Your task to perform on an android device: Look up the best rated hair dryer on Walmart. Image 0: 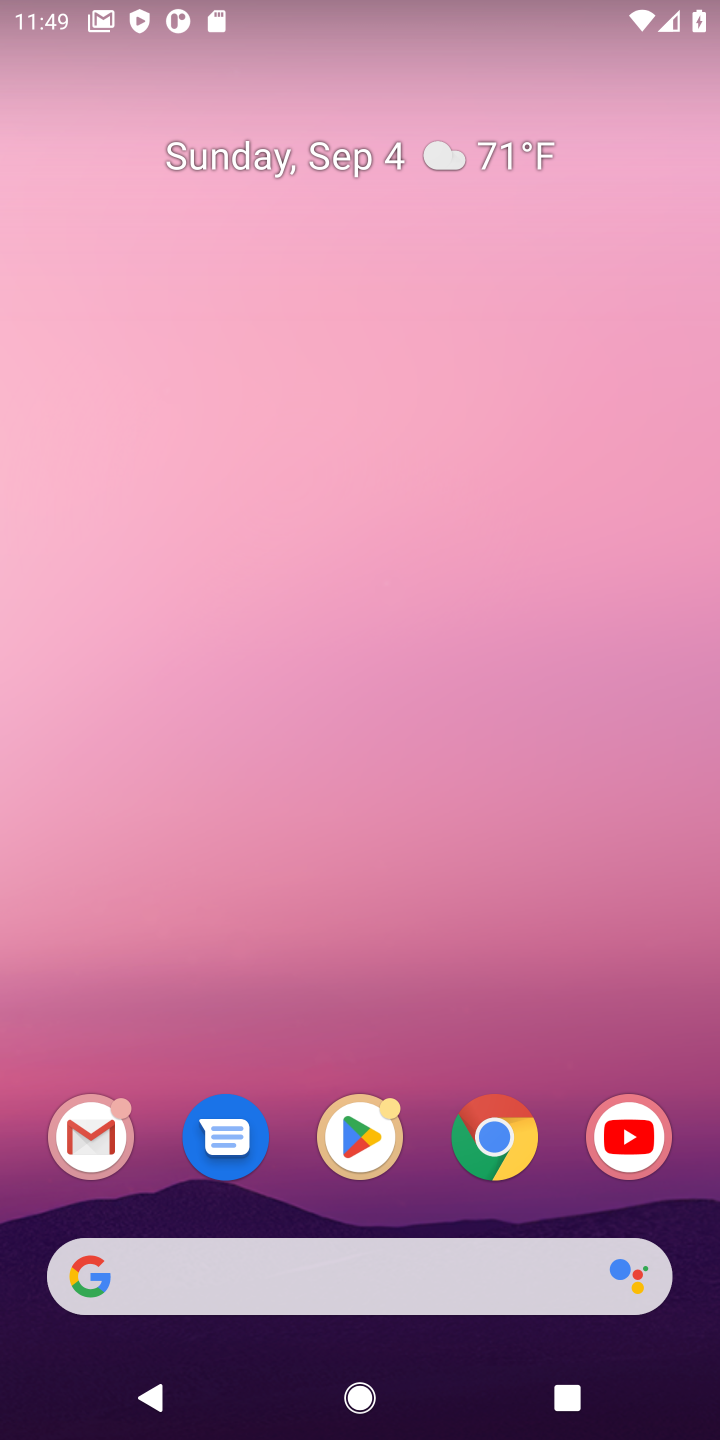
Step 0: click (481, 1144)
Your task to perform on an android device: Look up the best rated hair dryer on Walmart. Image 1: 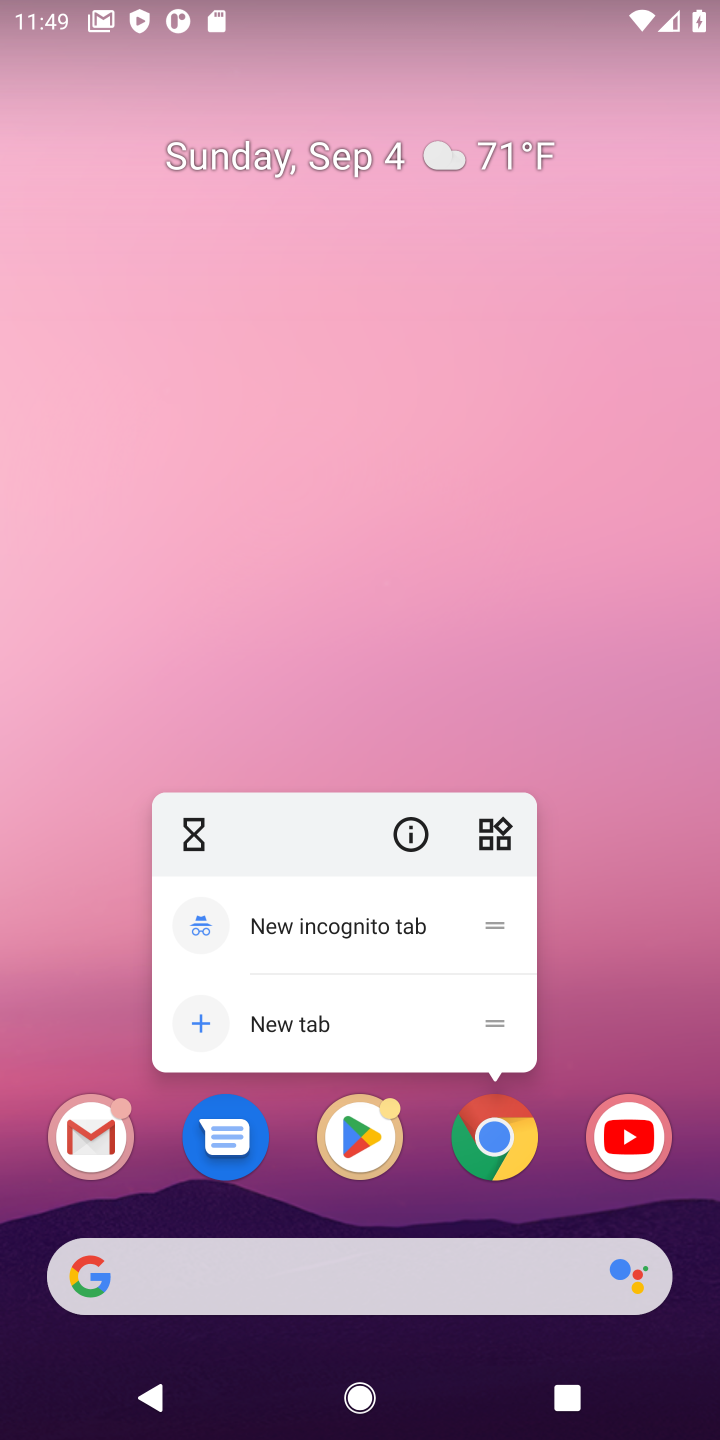
Step 1: click (481, 1144)
Your task to perform on an android device: Look up the best rated hair dryer on Walmart. Image 2: 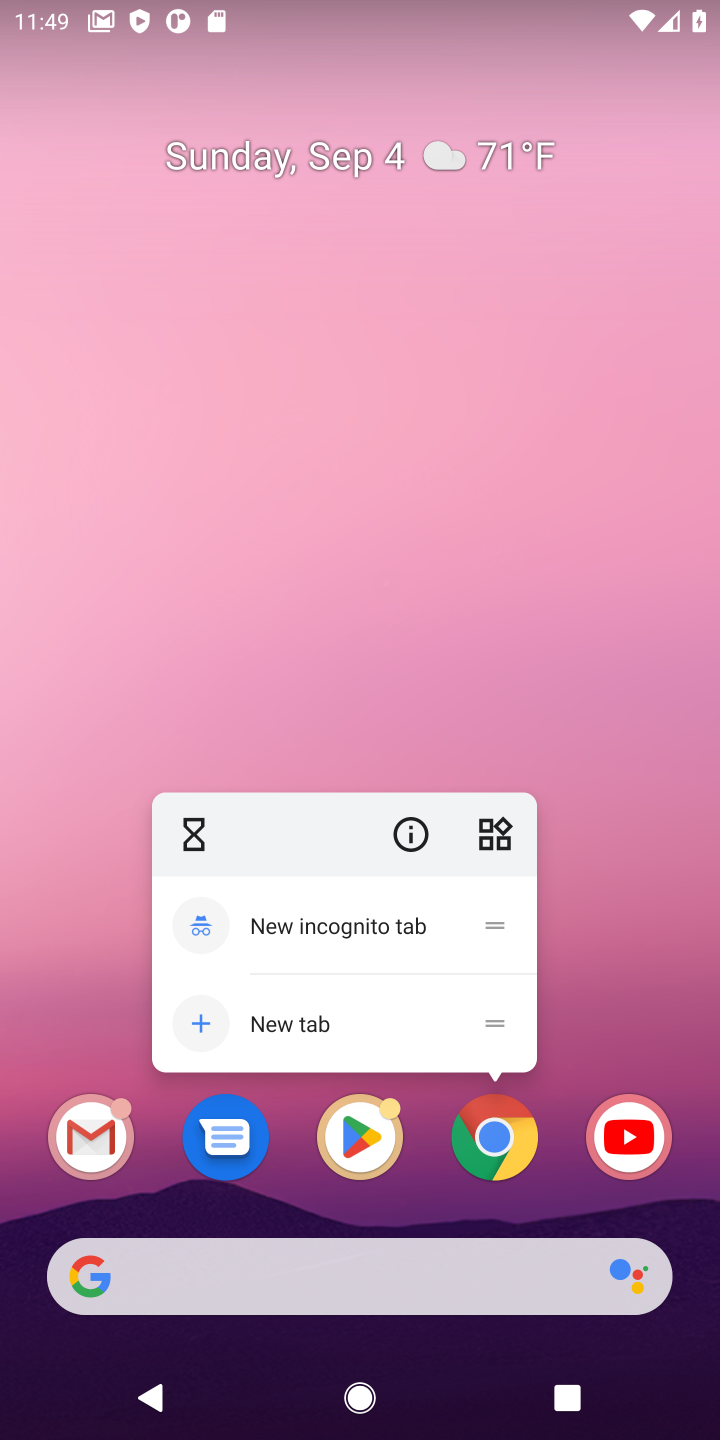
Step 2: click (481, 1144)
Your task to perform on an android device: Look up the best rated hair dryer on Walmart. Image 3: 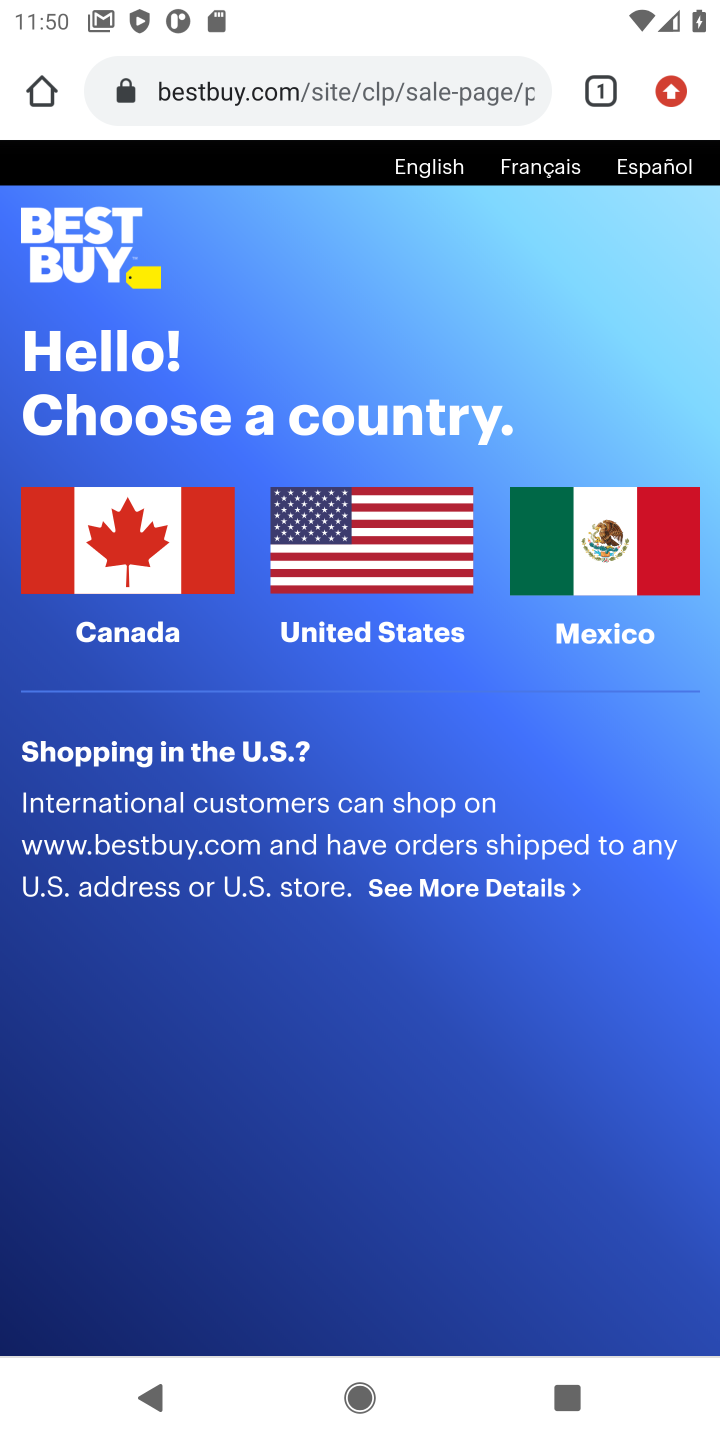
Step 3: click (368, 90)
Your task to perform on an android device: Look up the best rated hair dryer on Walmart. Image 4: 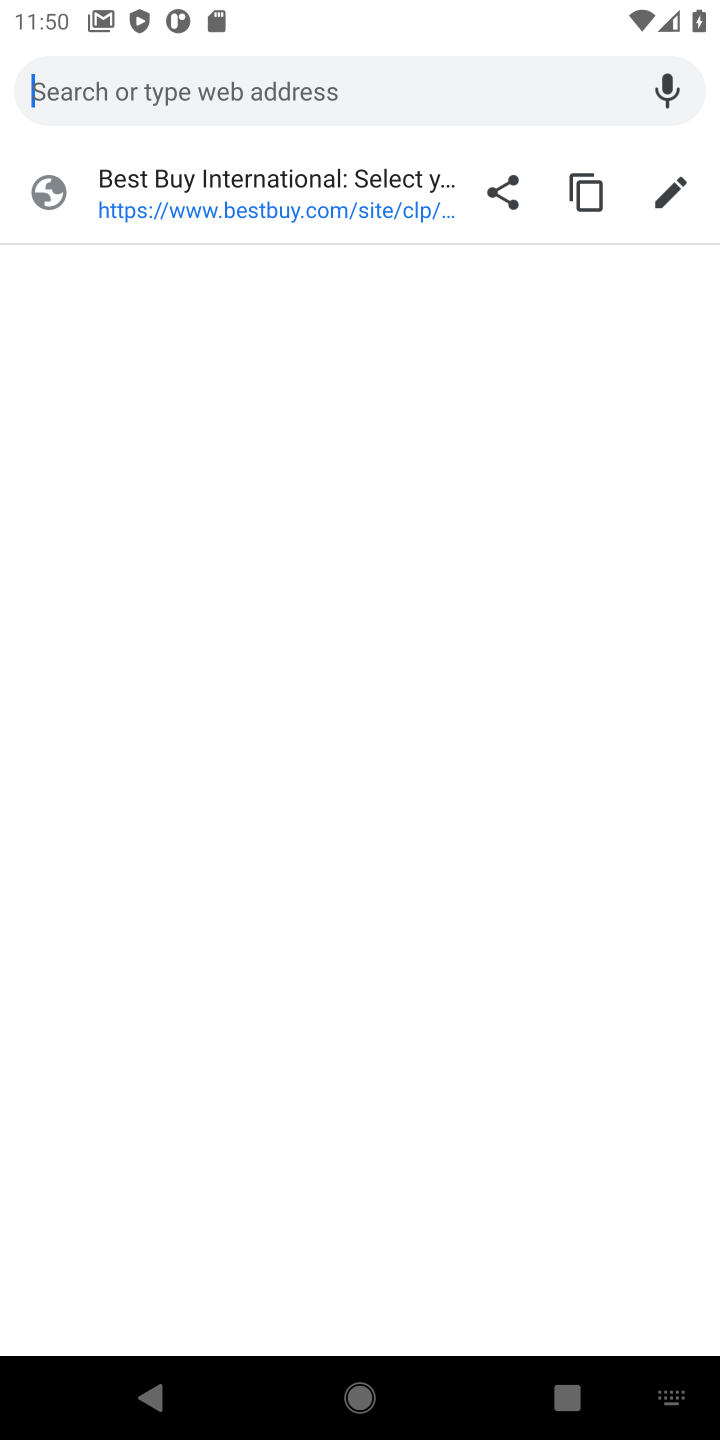
Step 4: type "walmart"
Your task to perform on an android device: Look up the best rated hair dryer on Walmart. Image 5: 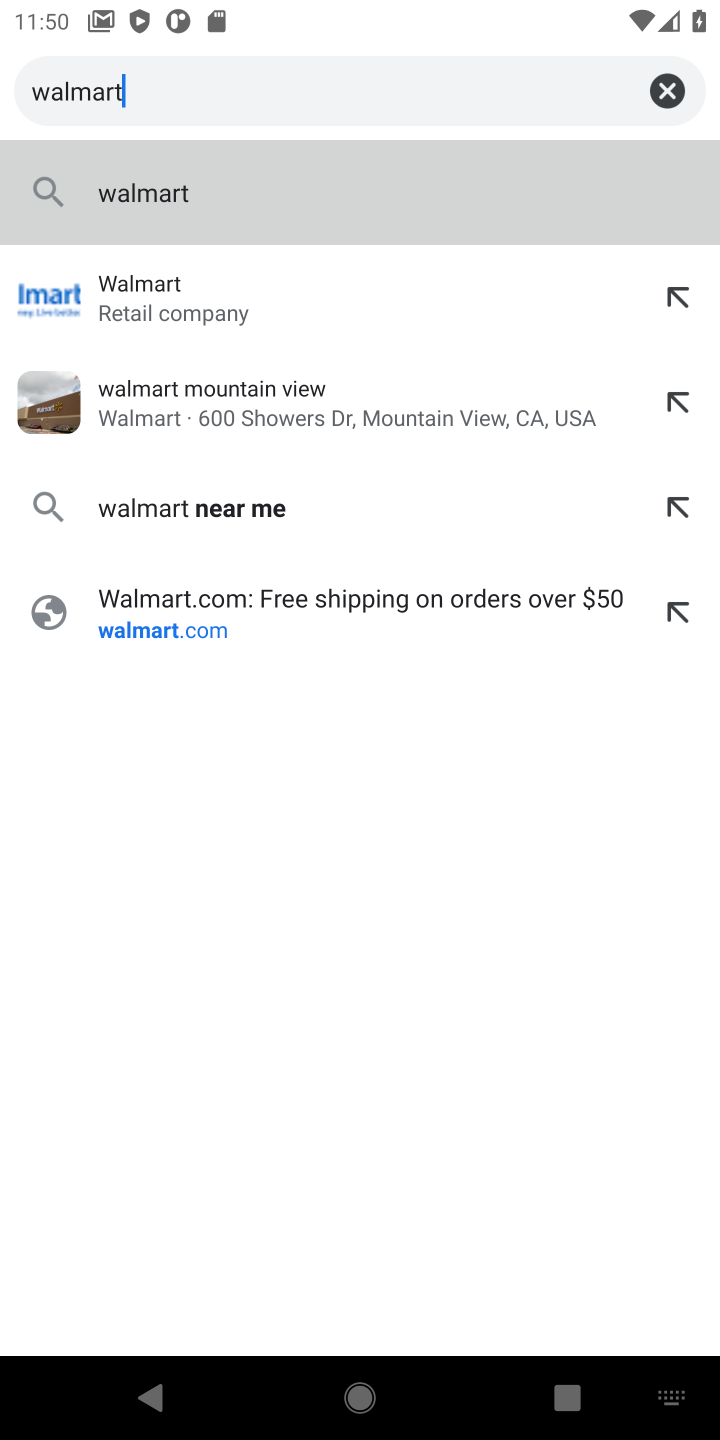
Step 5: click (142, 284)
Your task to perform on an android device: Look up the best rated hair dryer on Walmart. Image 6: 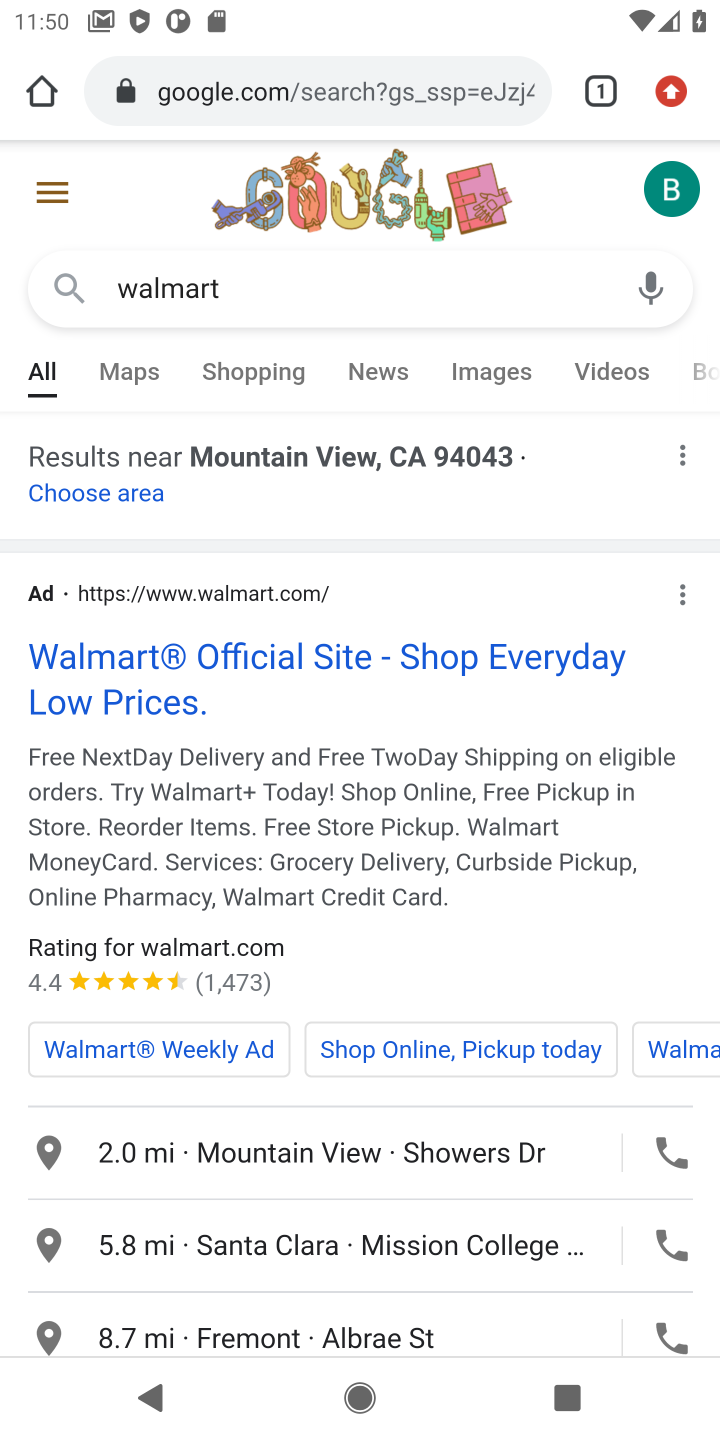
Step 6: click (113, 679)
Your task to perform on an android device: Look up the best rated hair dryer on Walmart. Image 7: 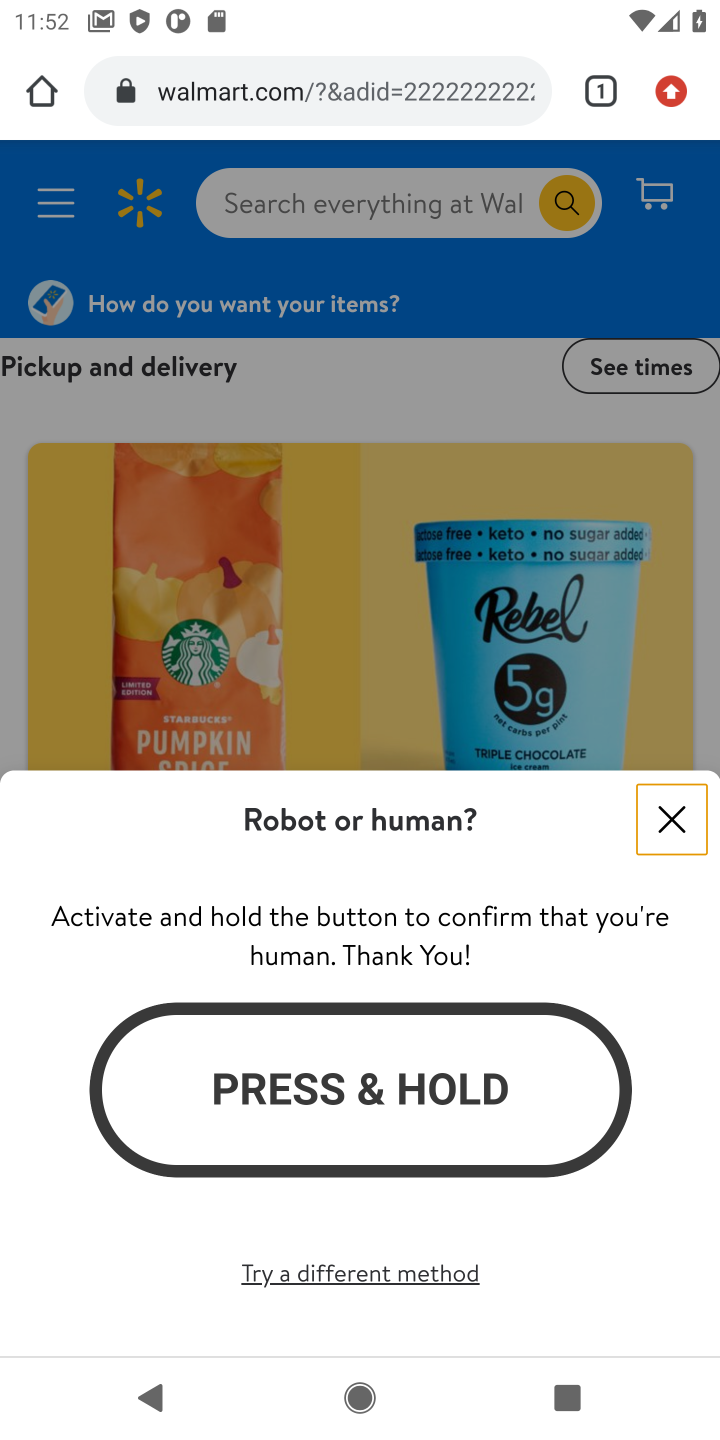
Step 7: click (665, 826)
Your task to perform on an android device: Look up the best rated hair dryer on Walmart. Image 8: 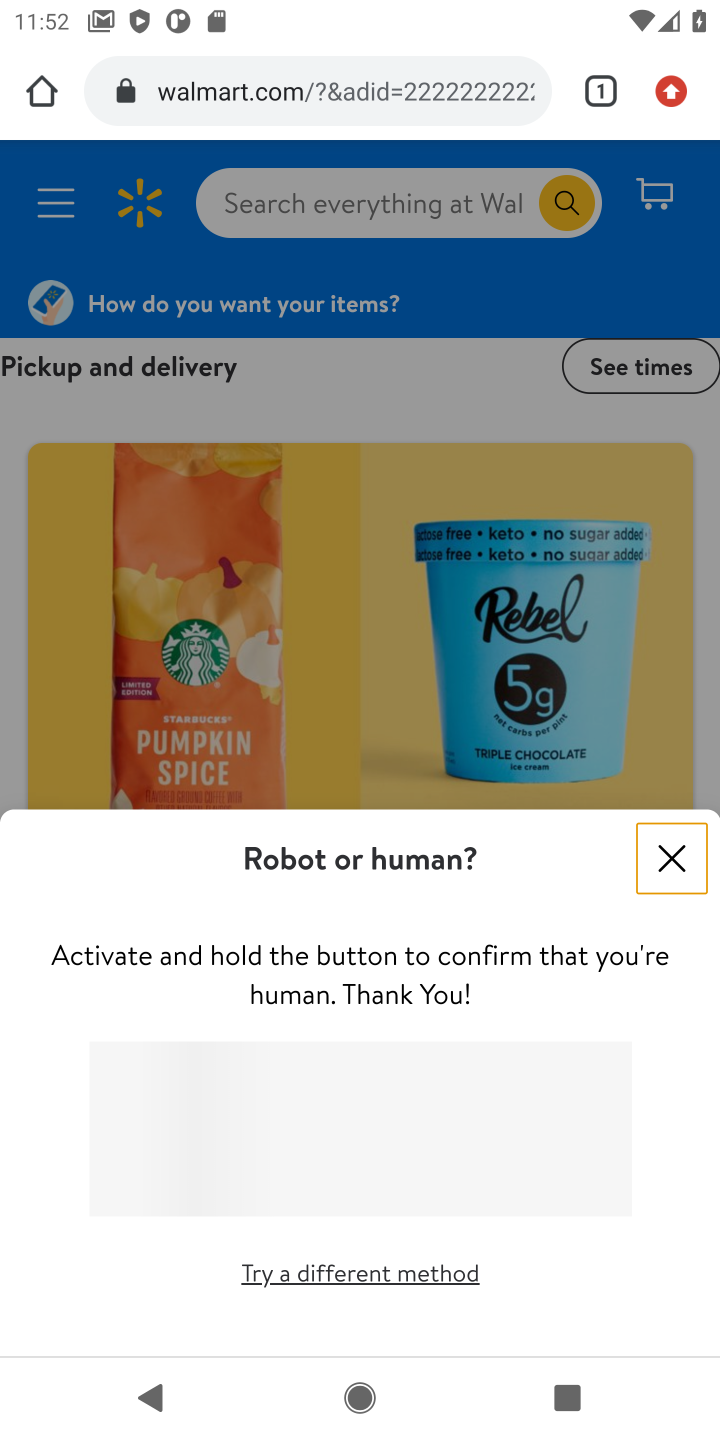
Step 8: click (398, 197)
Your task to perform on an android device: Look up the best rated hair dryer on Walmart. Image 9: 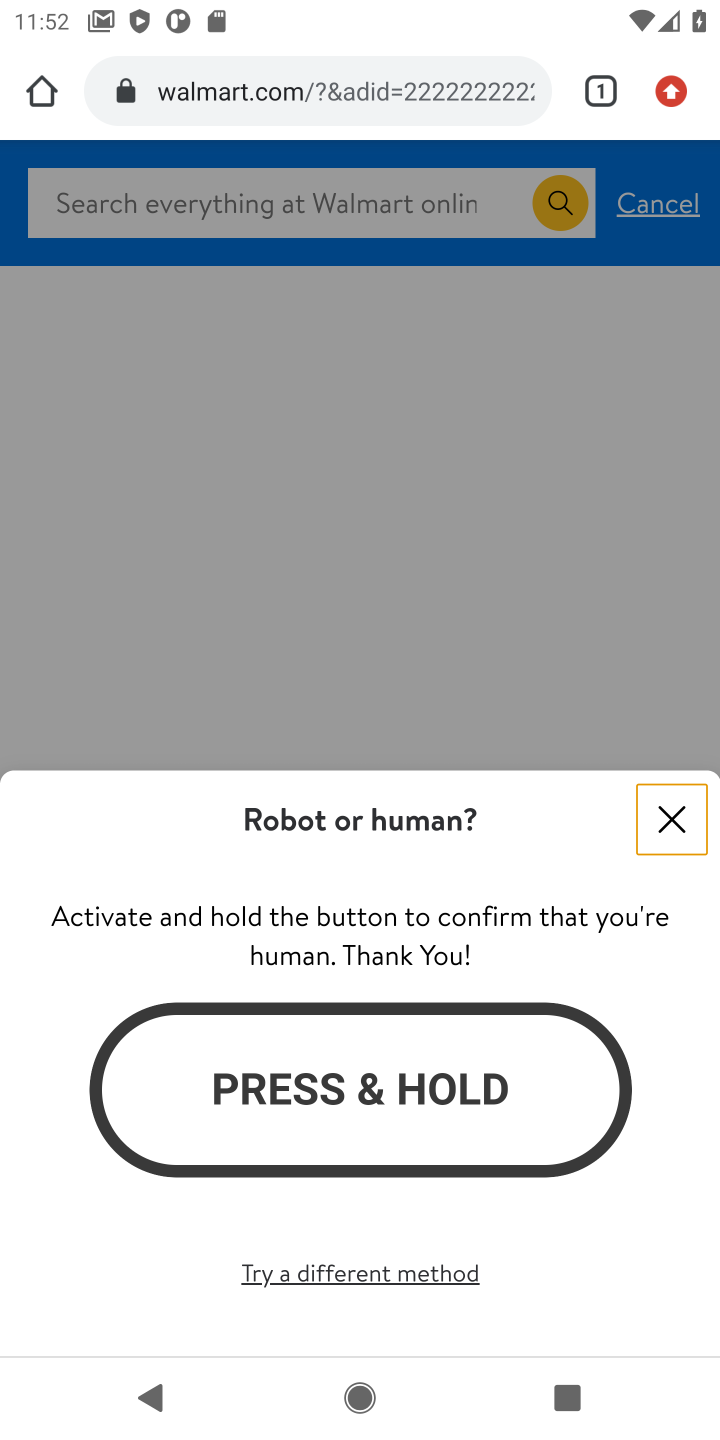
Step 9: click (667, 833)
Your task to perform on an android device: Look up the best rated hair dryer on Walmart. Image 10: 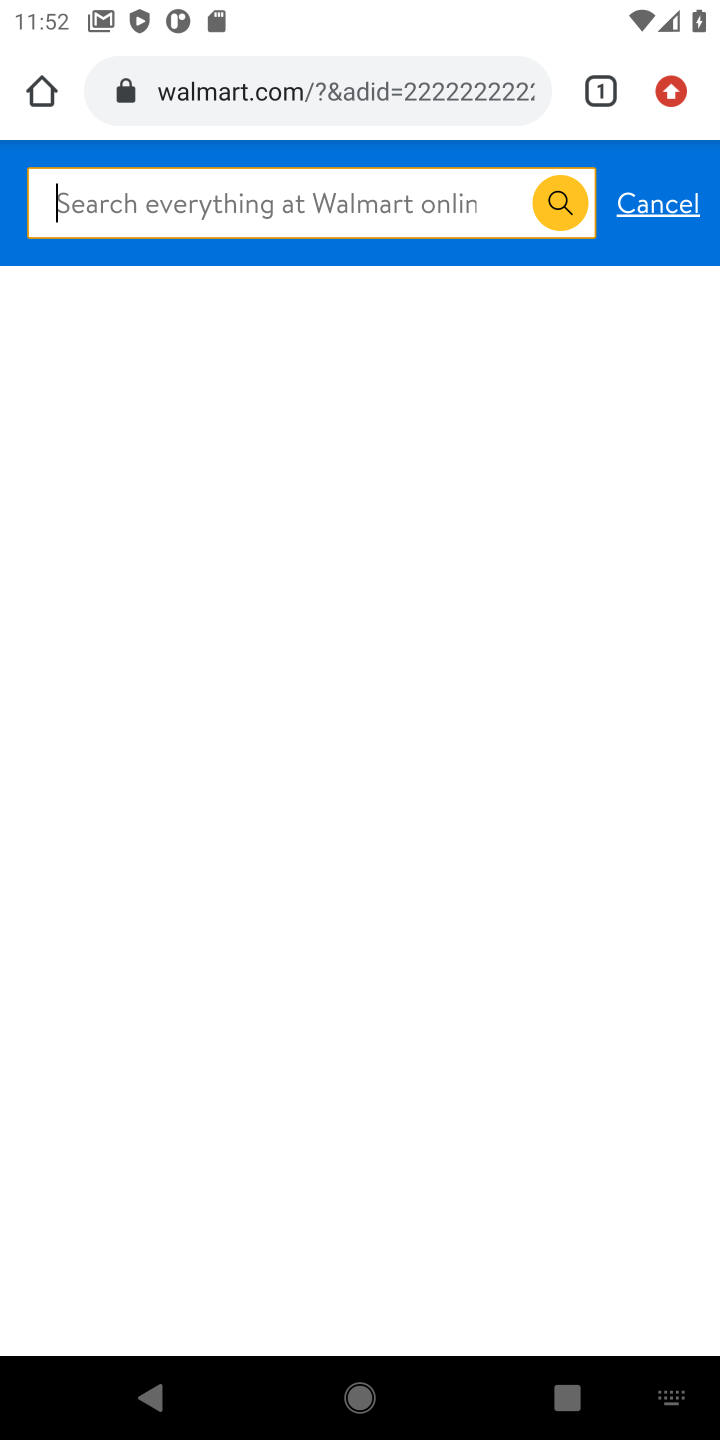
Step 10: type "hair dryer"
Your task to perform on an android device: Look up the best rated hair dryer on Walmart. Image 11: 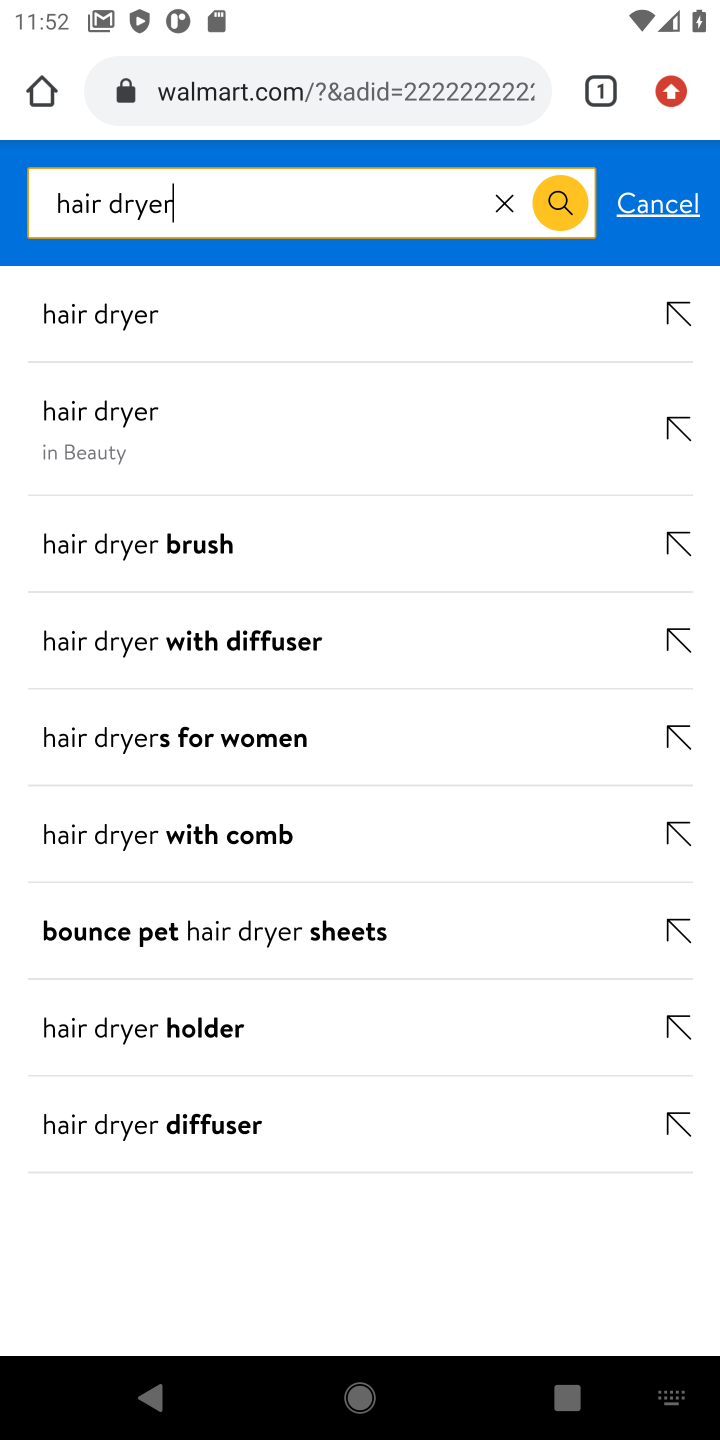
Step 11: click (114, 315)
Your task to perform on an android device: Look up the best rated hair dryer on Walmart. Image 12: 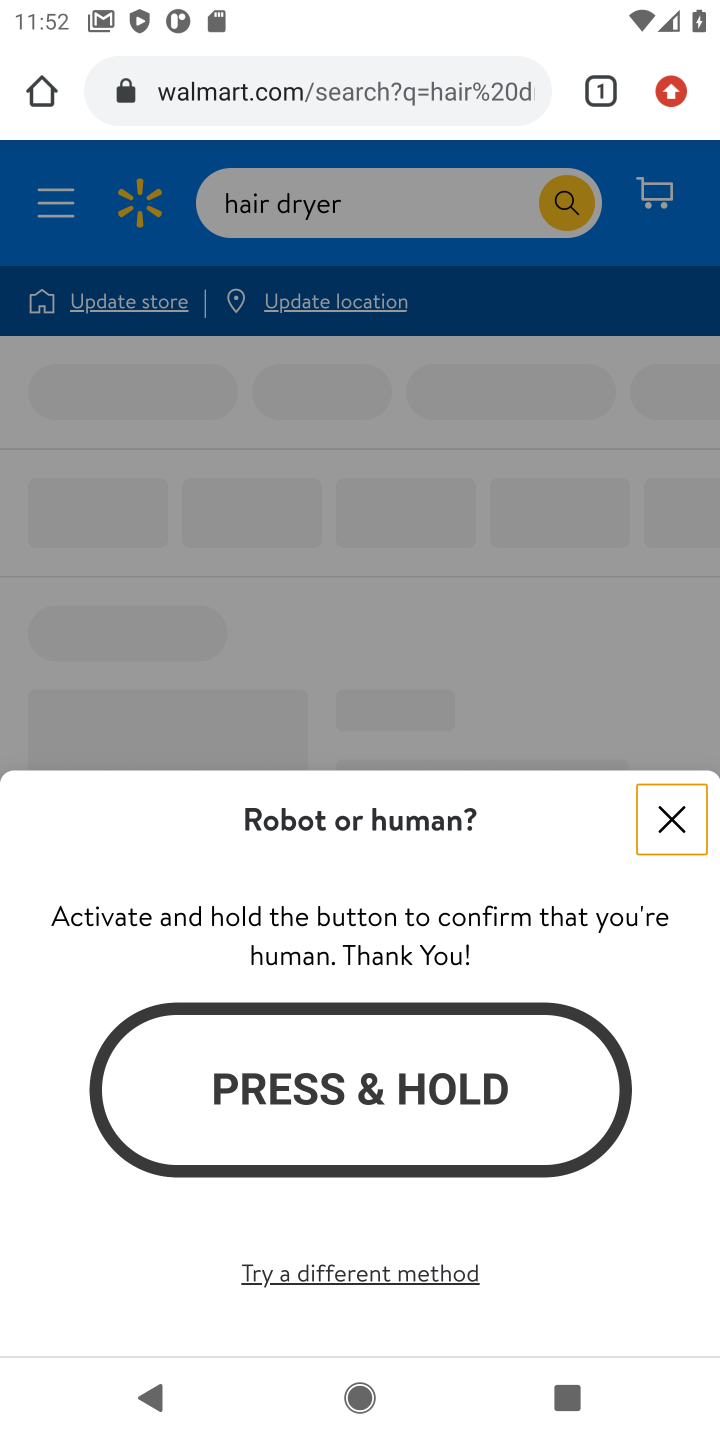
Step 12: task complete